Your task to perform on an android device: Play the new Demi Lovato video on YouTube Image 0: 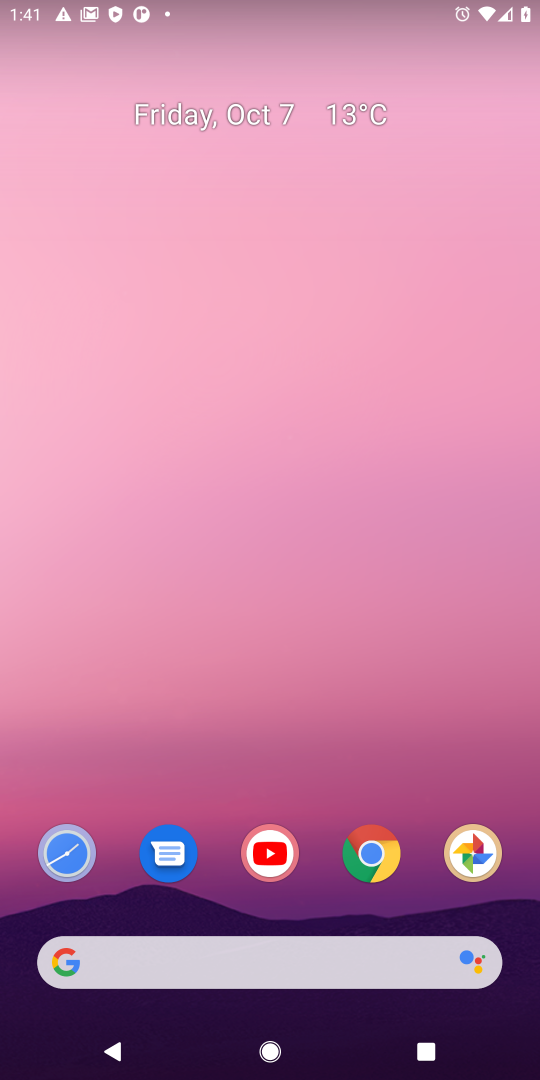
Step 0: click (257, 837)
Your task to perform on an android device: Play the new Demi Lovato video on YouTube Image 1: 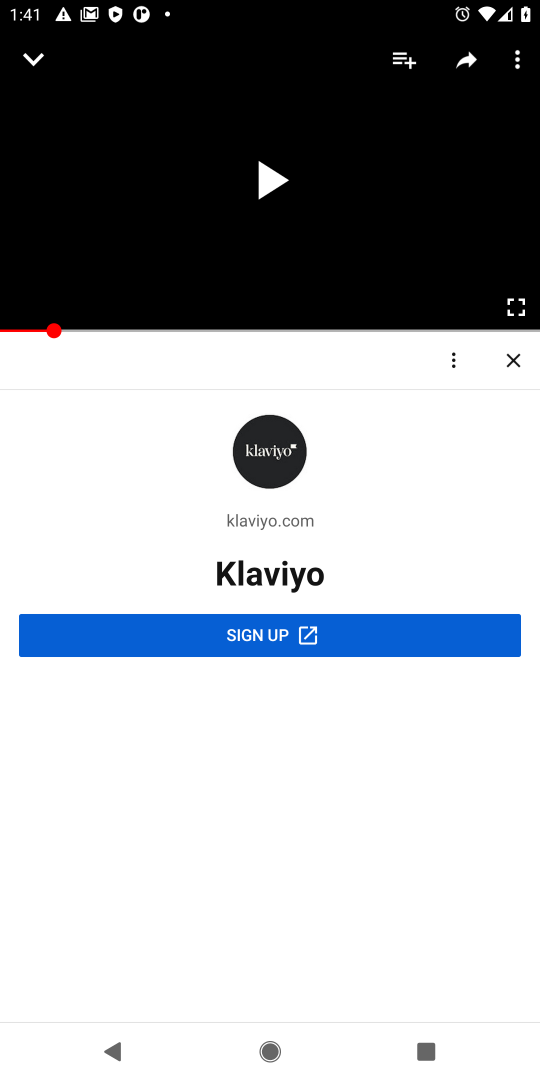
Step 1: click (39, 71)
Your task to perform on an android device: Play the new Demi Lovato video on YouTube Image 2: 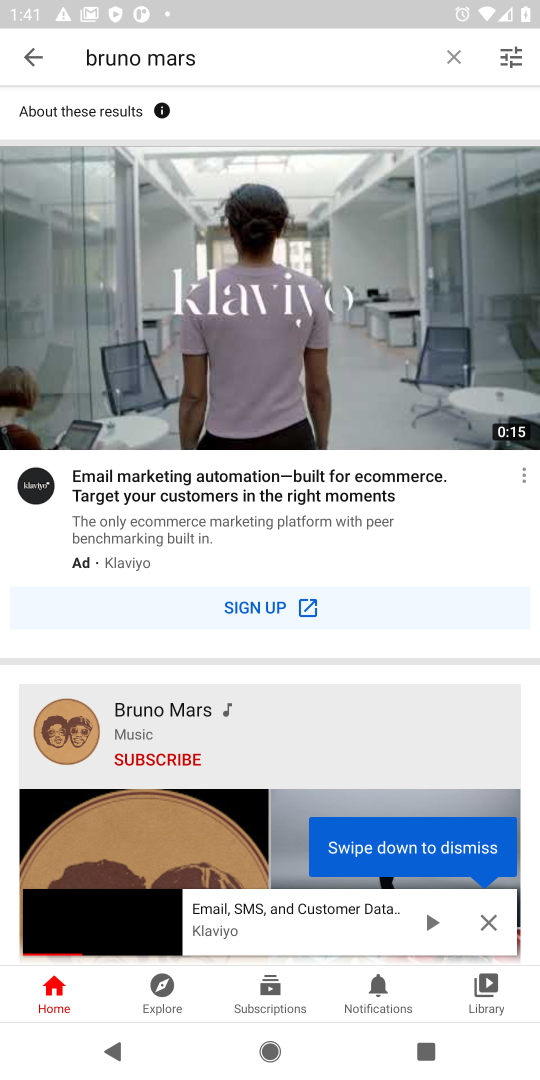
Step 2: click (453, 51)
Your task to perform on an android device: Play the new Demi Lovato video on YouTube Image 3: 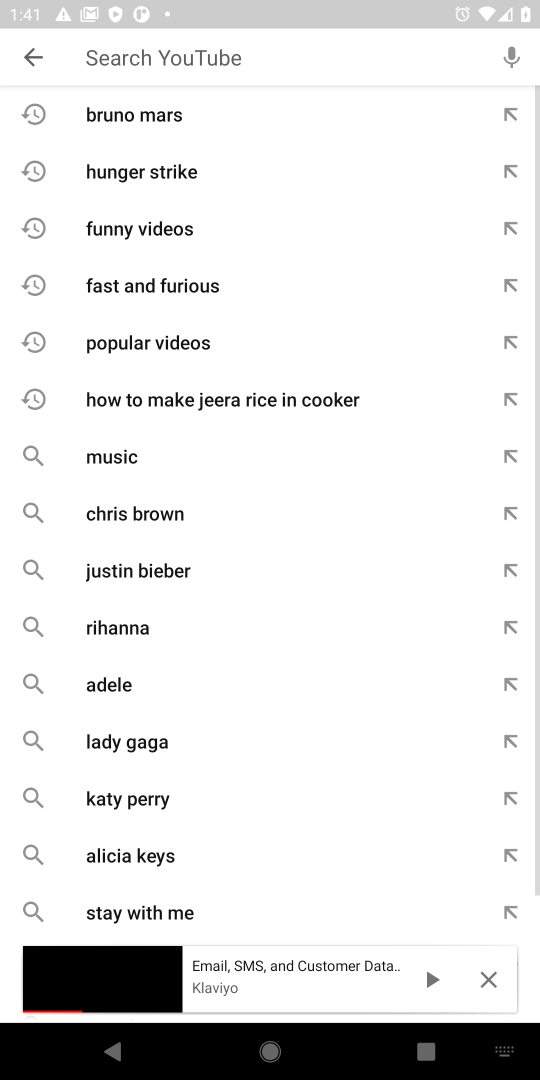
Step 3: type "Demi Lovato"
Your task to perform on an android device: Play the new Demi Lovato video on YouTube Image 4: 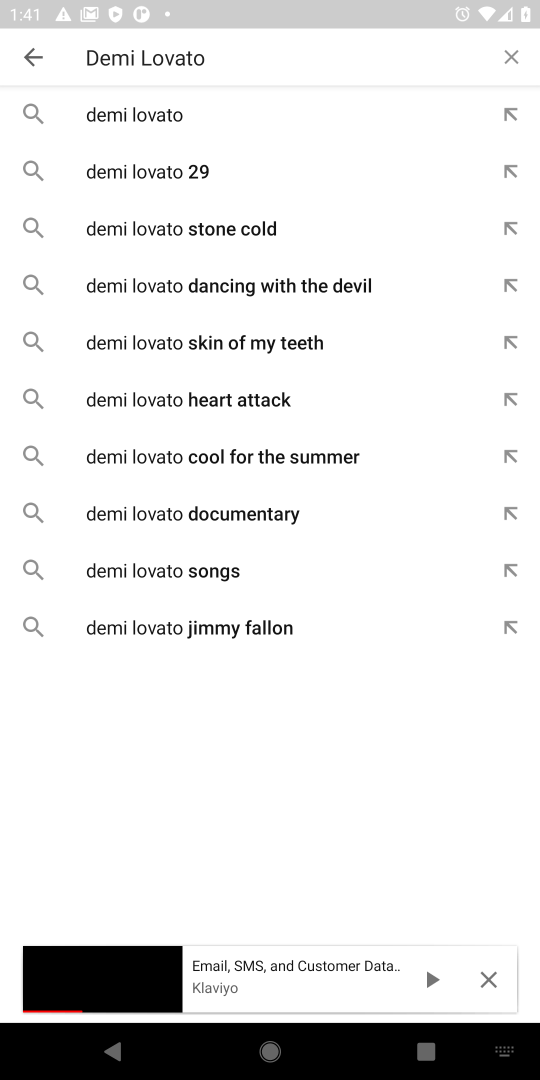
Step 4: click (304, 117)
Your task to perform on an android device: Play the new Demi Lovato video on YouTube Image 5: 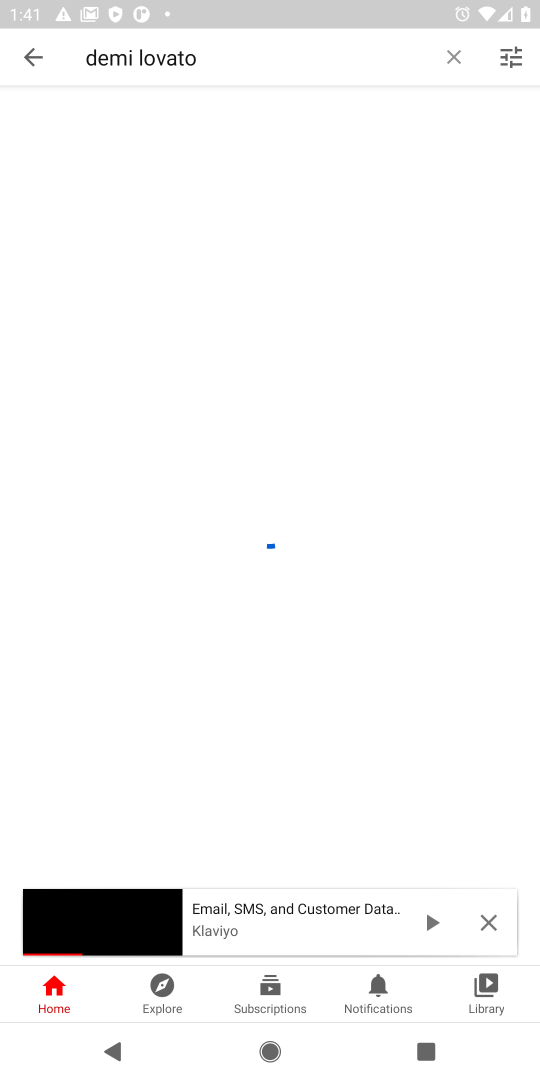
Step 5: task complete